Your task to perform on an android device: Open calendar and show me the fourth week of next month Image 0: 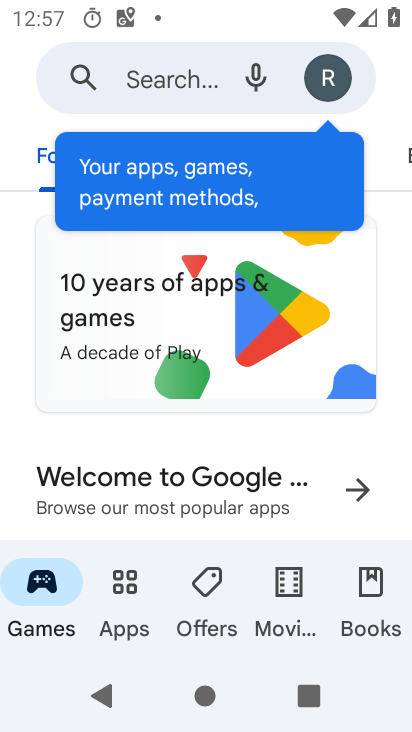
Step 0: press back button
Your task to perform on an android device: Open calendar and show me the fourth week of next month Image 1: 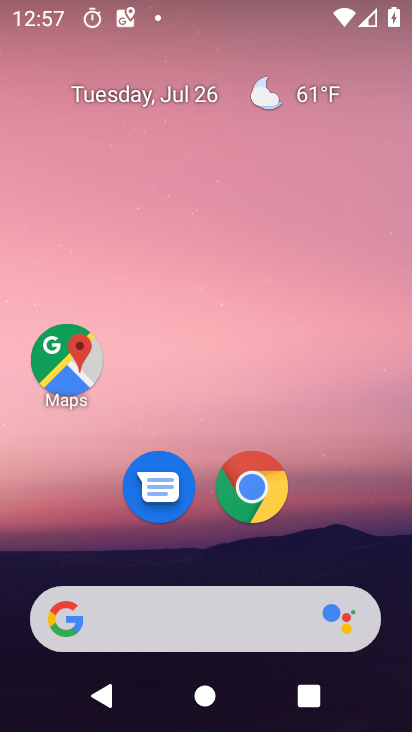
Step 1: drag from (72, 526) to (161, 5)
Your task to perform on an android device: Open calendar and show me the fourth week of next month Image 2: 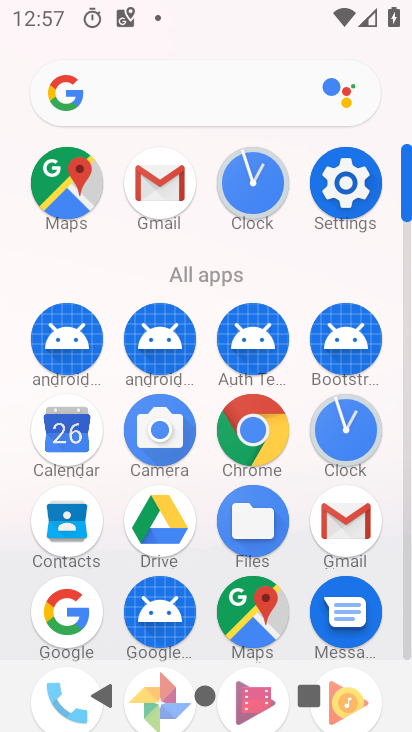
Step 2: click (63, 438)
Your task to perform on an android device: Open calendar and show me the fourth week of next month Image 3: 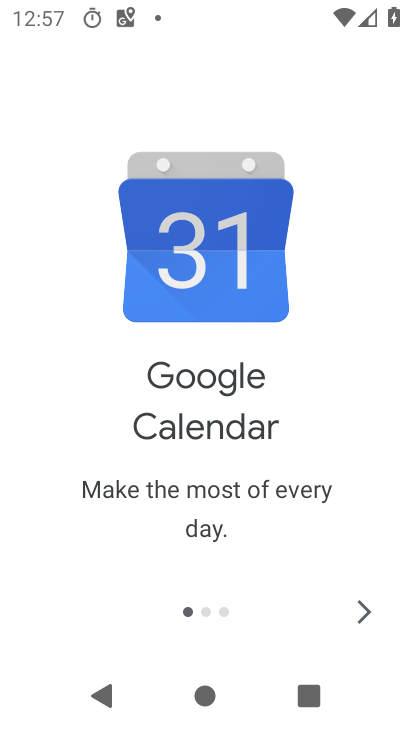
Step 3: click (345, 591)
Your task to perform on an android device: Open calendar and show me the fourth week of next month Image 4: 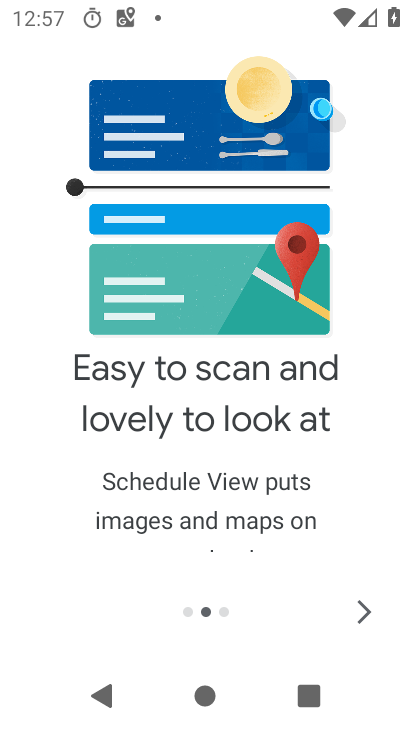
Step 4: click (366, 600)
Your task to perform on an android device: Open calendar and show me the fourth week of next month Image 5: 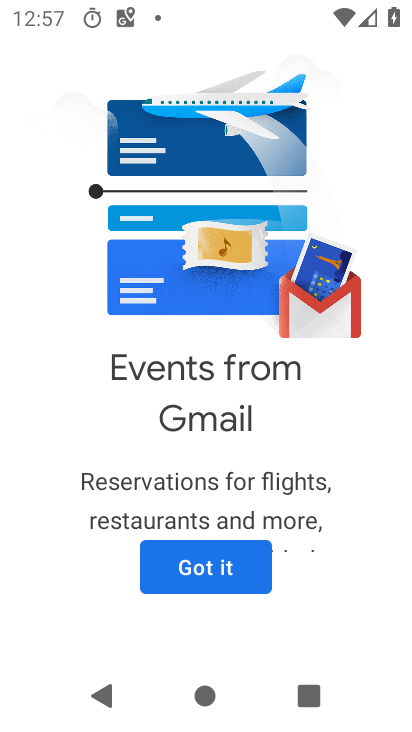
Step 5: click (203, 575)
Your task to perform on an android device: Open calendar and show me the fourth week of next month Image 6: 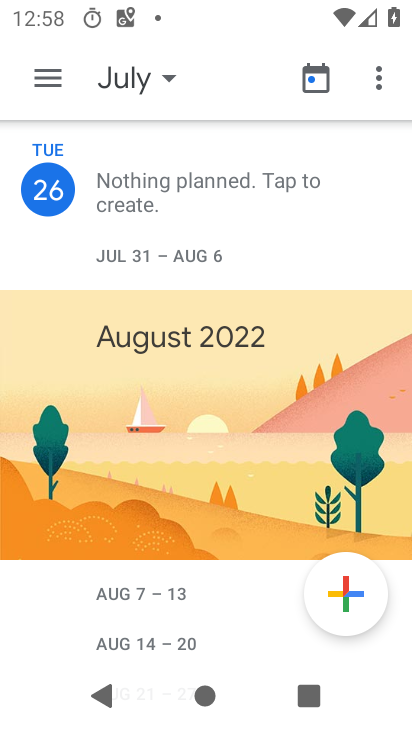
Step 6: click (149, 76)
Your task to perform on an android device: Open calendar and show me the fourth week of next month Image 7: 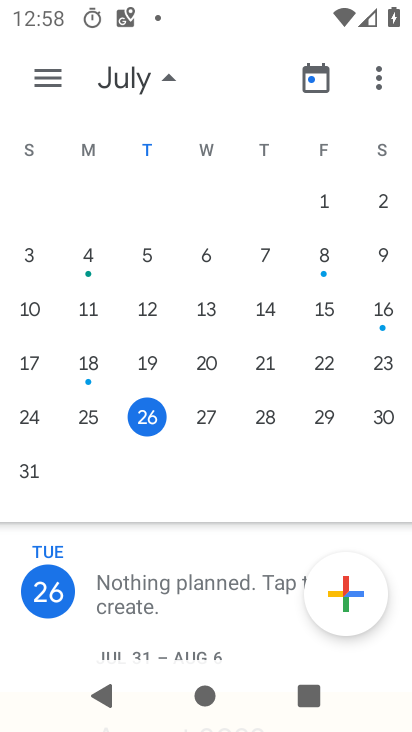
Step 7: drag from (378, 302) to (0, 319)
Your task to perform on an android device: Open calendar and show me the fourth week of next month Image 8: 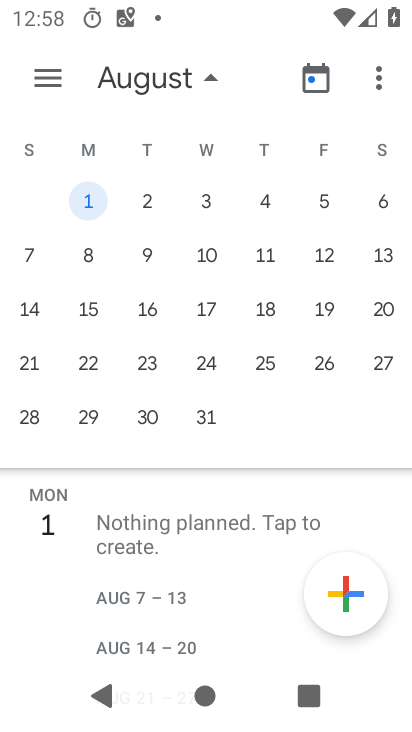
Step 8: click (83, 355)
Your task to perform on an android device: Open calendar and show me the fourth week of next month Image 9: 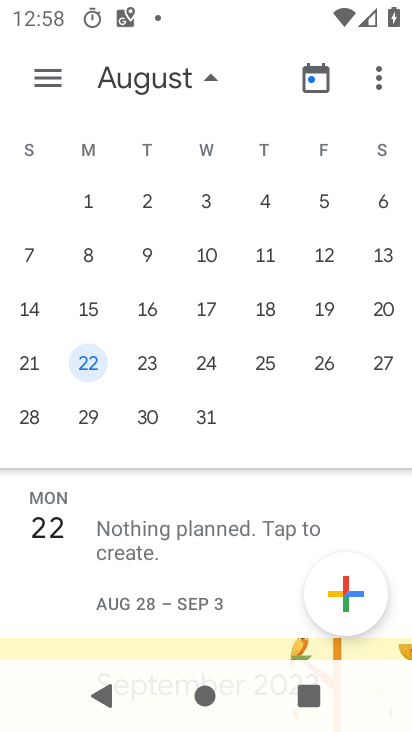
Step 9: task complete